Your task to perform on an android device: turn on airplane mode Image 0: 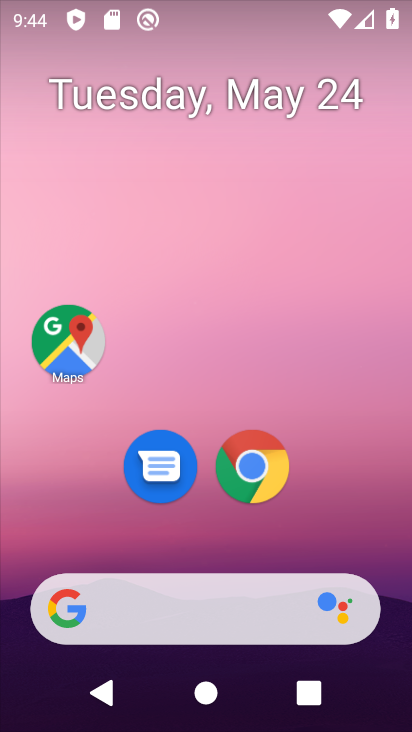
Step 0: drag from (191, 543) to (181, 0)
Your task to perform on an android device: turn on airplane mode Image 1: 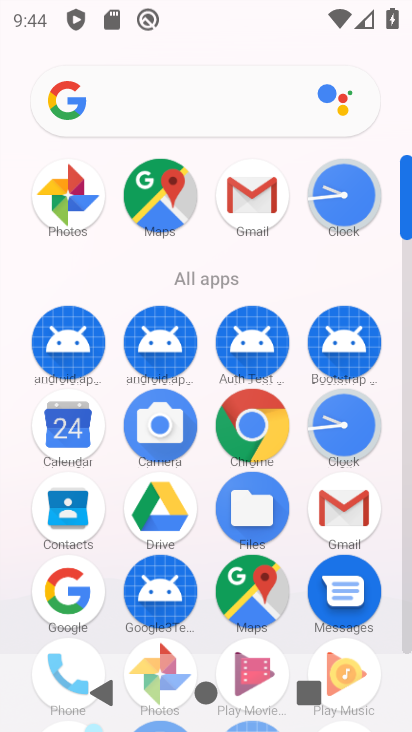
Step 1: drag from (245, 512) to (277, 10)
Your task to perform on an android device: turn on airplane mode Image 2: 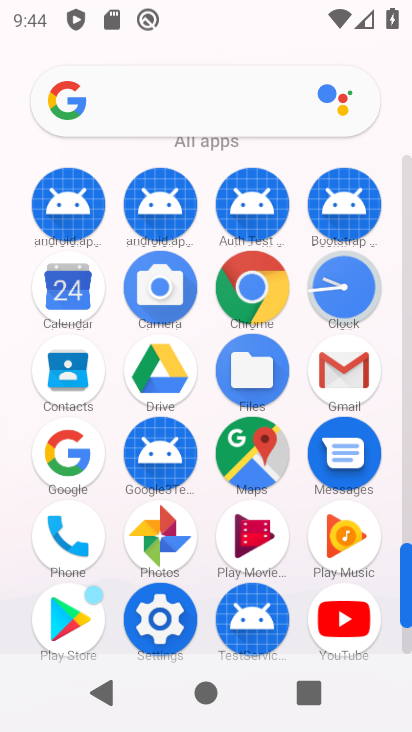
Step 2: click (144, 620)
Your task to perform on an android device: turn on airplane mode Image 3: 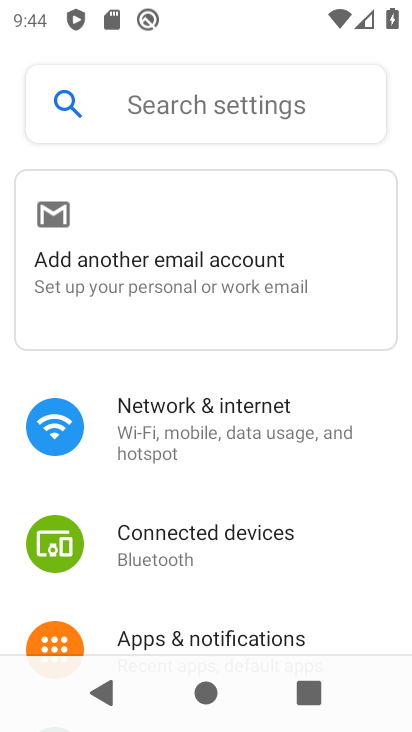
Step 3: click (251, 437)
Your task to perform on an android device: turn on airplane mode Image 4: 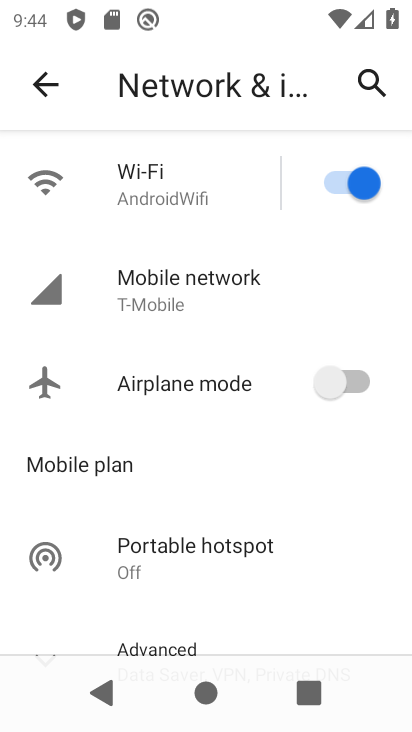
Step 4: click (360, 396)
Your task to perform on an android device: turn on airplane mode Image 5: 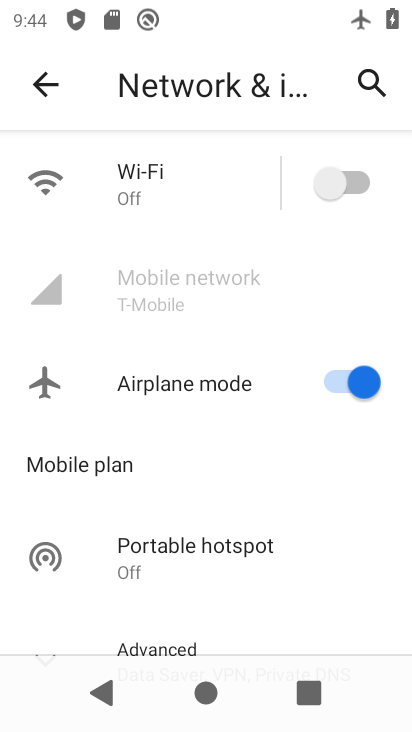
Step 5: task complete